Your task to perform on an android device: check google app version Image 0: 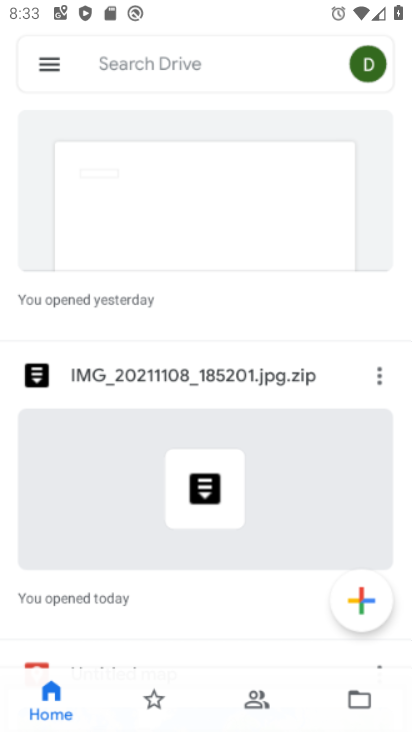
Step 0: drag from (221, 605) to (272, 191)
Your task to perform on an android device: check google app version Image 1: 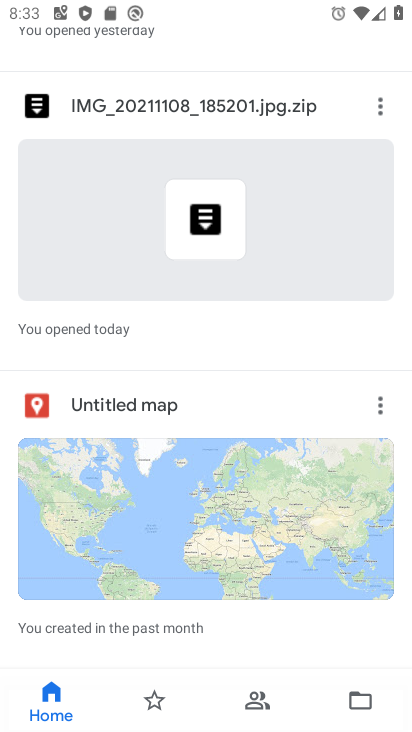
Step 1: drag from (291, 96) to (225, 731)
Your task to perform on an android device: check google app version Image 2: 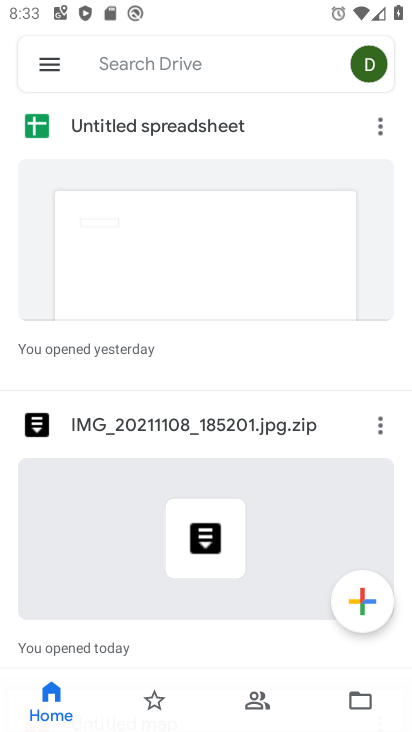
Step 2: press home button
Your task to perform on an android device: check google app version Image 3: 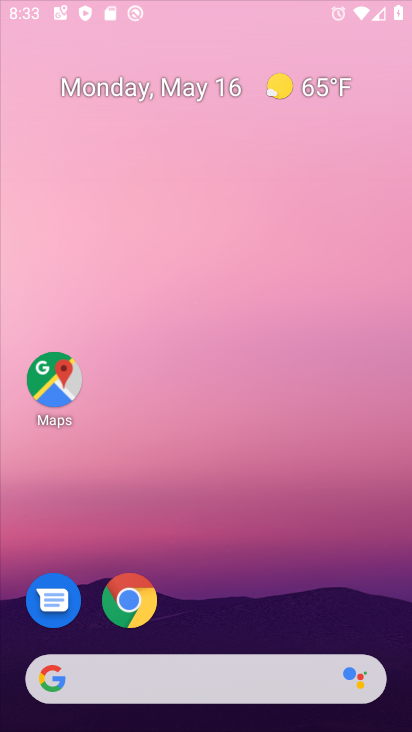
Step 3: drag from (211, 600) to (293, 132)
Your task to perform on an android device: check google app version Image 4: 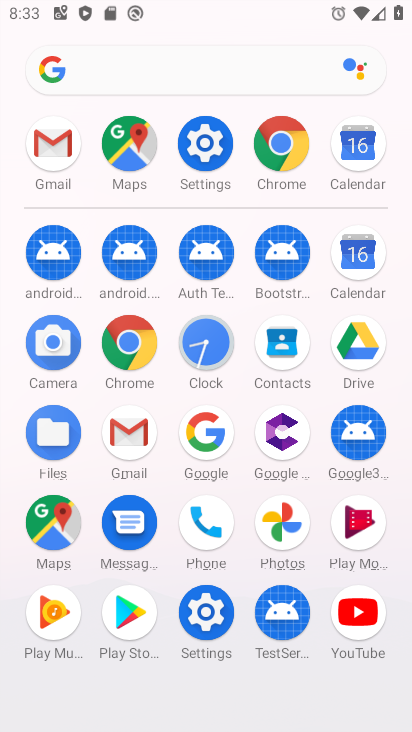
Step 4: click (216, 431)
Your task to perform on an android device: check google app version Image 5: 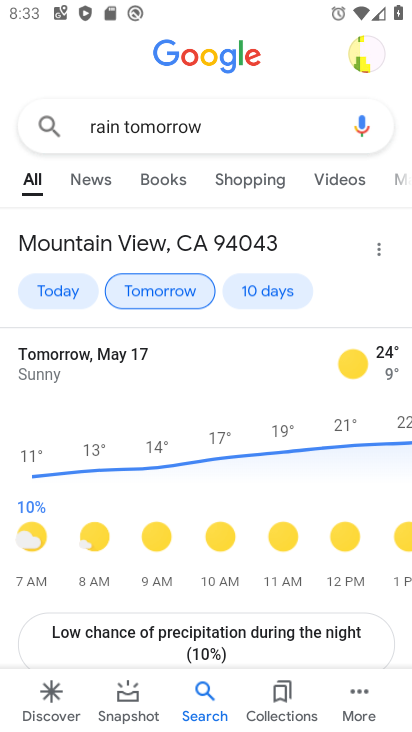
Step 5: click (360, 679)
Your task to perform on an android device: check google app version Image 6: 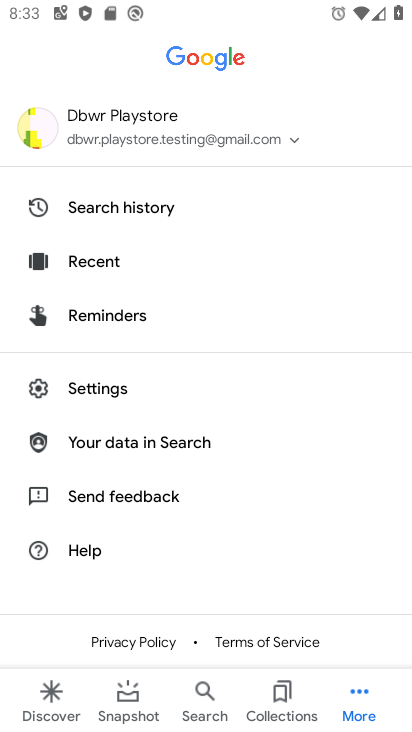
Step 6: click (128, 375)
Your task to perform on an android device: check google app version Image 7: 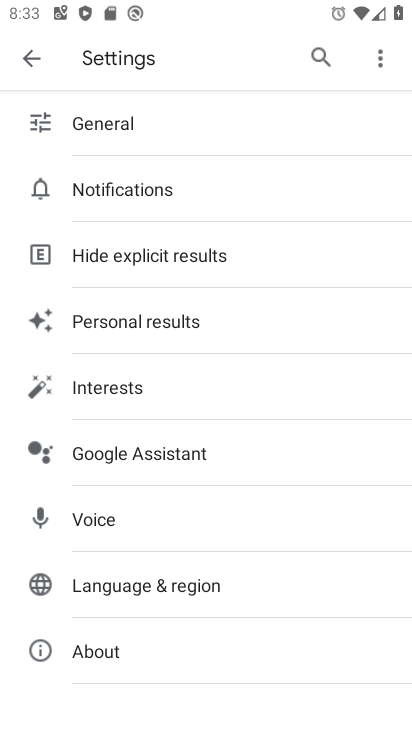
Step 7: drag from (239, 586) to (342, 169)
Your task to perform on an android device: check google app version Image 8: 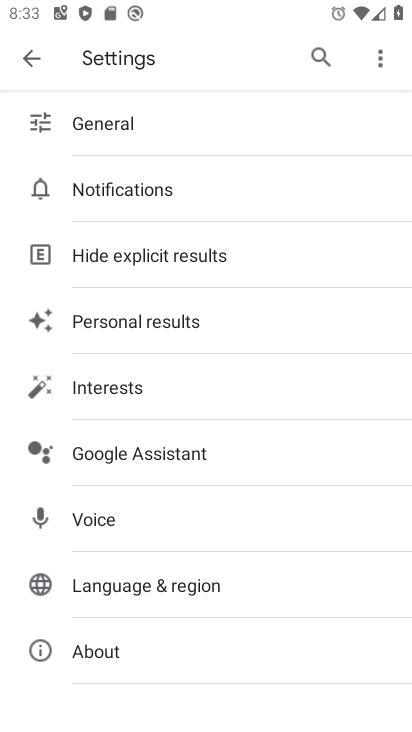
Step 8: click (158, 659)
Your task to perform on an android device: check google app version Image 9: 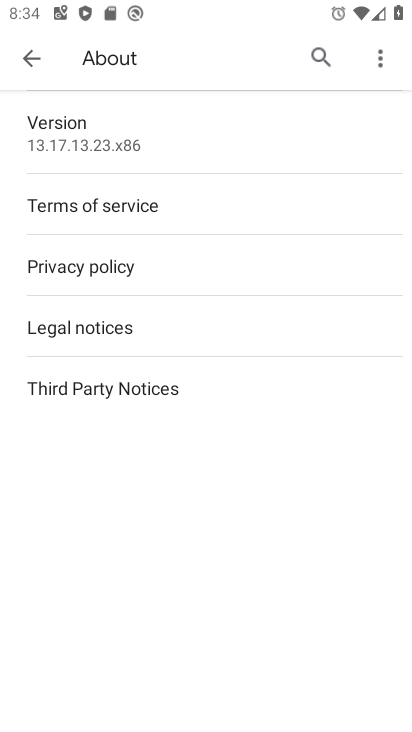
Step 9: click (157, 155)
Your task to perform on an android device: check google app version Image 10: 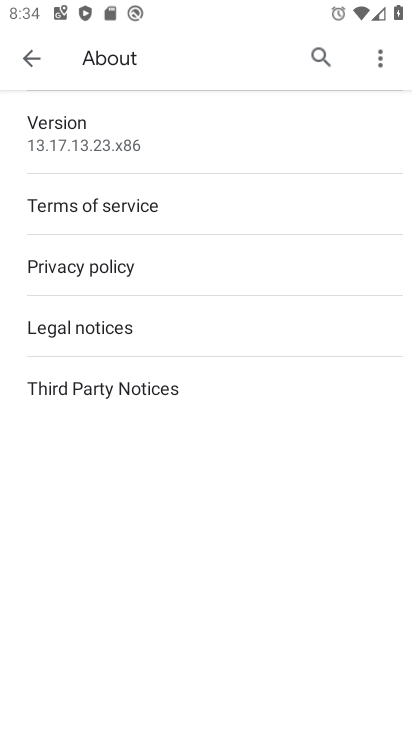
Step 10: task complete